Your task to perform on an android device: turn pop-ups on in chrome Image 0: 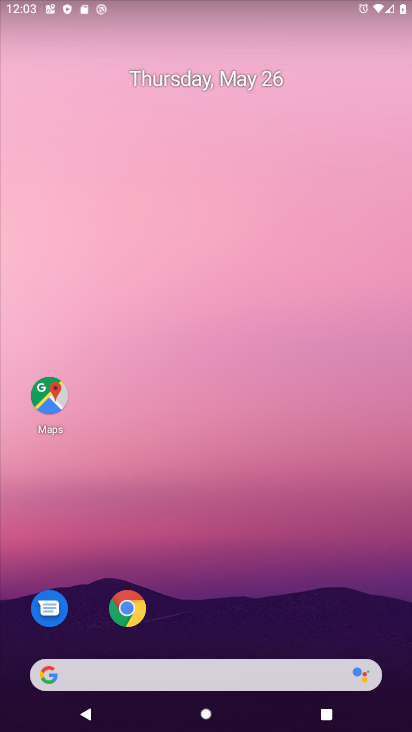
Step 0: click (130, 604)
Your task to perform on an android device: turn pop-ups on in chrome Image 1: 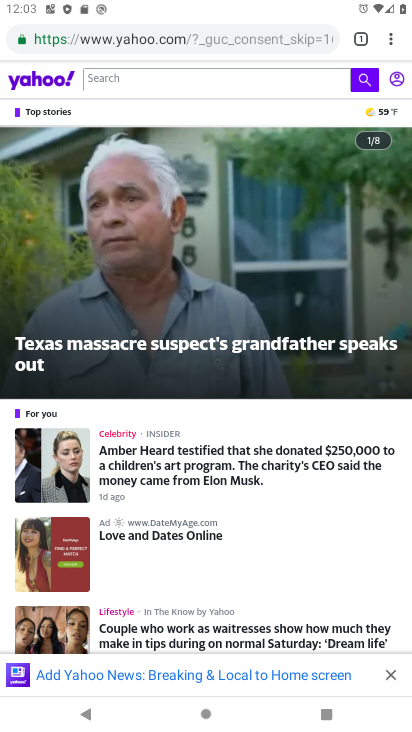
Step 1: click (390, 44)
Your task to perform on an android device: turn pop-ups on in chrome Image 2: 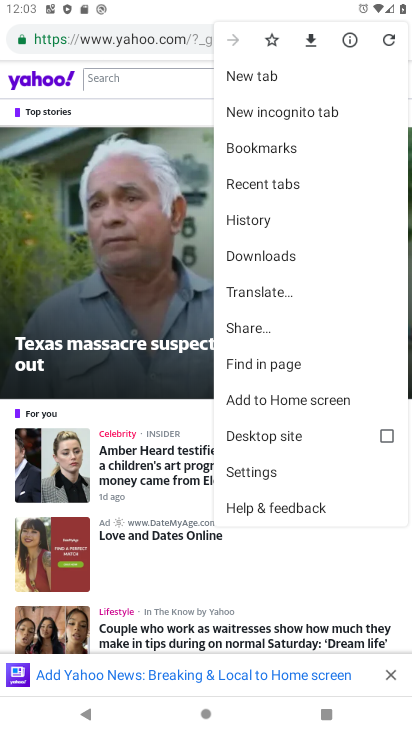
Step 2: click (257, 471)
Your task to perform on an android device: turn pop-ups on in chrome Image 3: 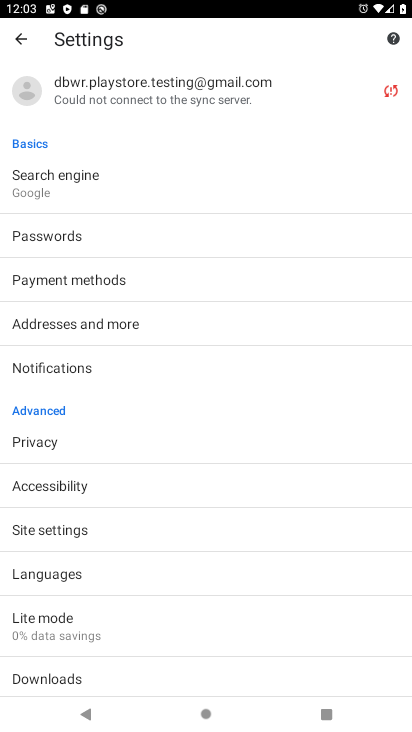
Step 3: click (78, 532)
Your task to perform on an android device: turn pop-ups on in chrome Image 4: 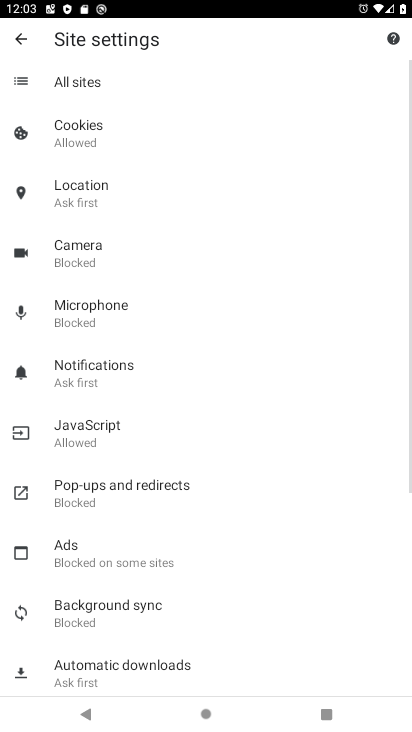
Step 4: click (109, 490)
Your task to perform on an android device: turn pop-ups on in chrome Image 5: 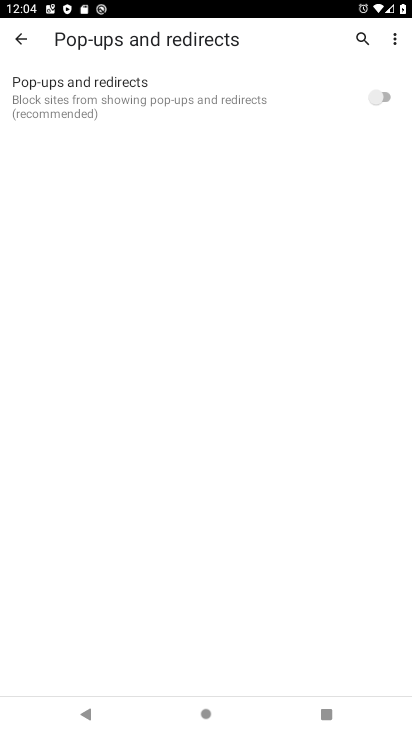
Step 5: click (387, 96)
Your task to perform on an android device: turn pop-ups on in chrome Image 6: 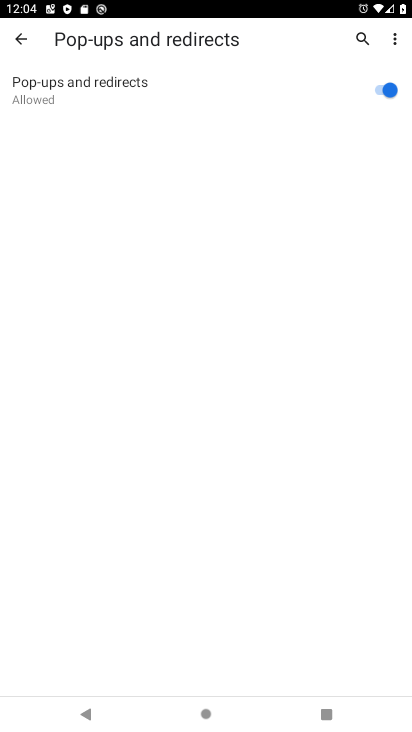
Step 6: task complete